Your task to perform on an android device: Open eBay Image 0: 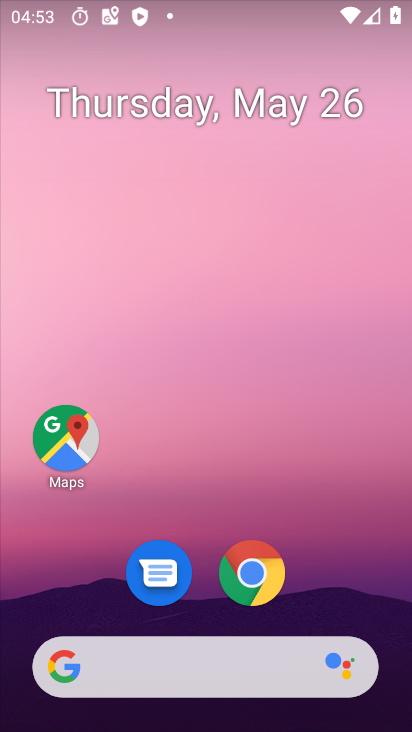
Step 0: click (252, 556)
Your task to perform on an android device: Open eBay Image 1: 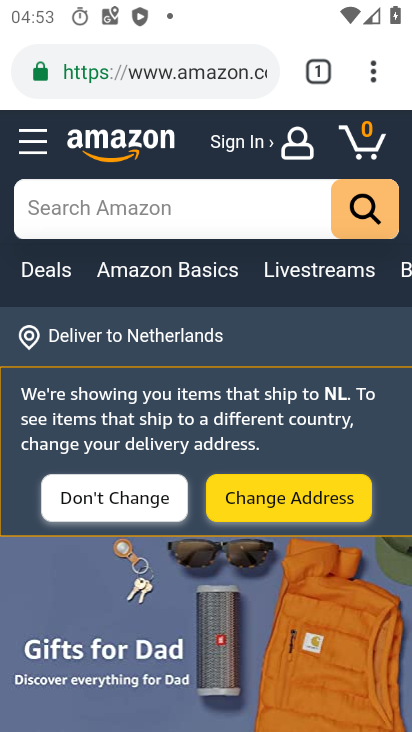
Step 1: press back button
Your task to perform on an android device: Open eBay Image 2: 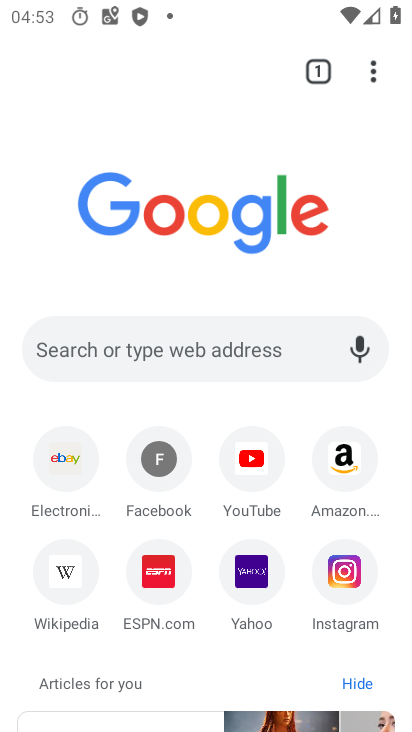
Step 2: click (66, 458)
Your task to perform on an android device: Open eBay Image 3: 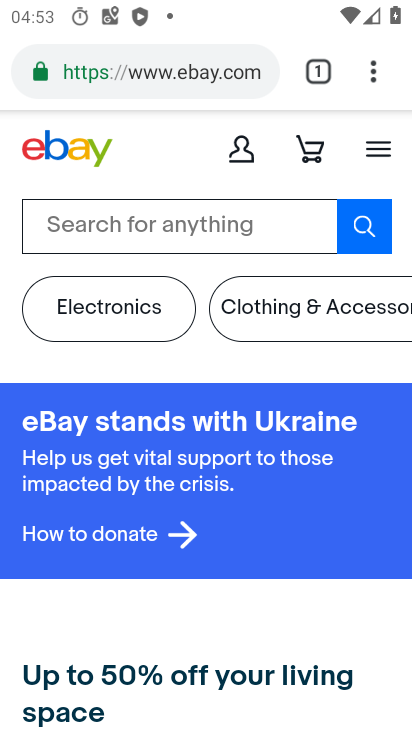
Step 3: task complete